Your task to perform on an android device: Search for Italian restaurants on Maps Image 0: 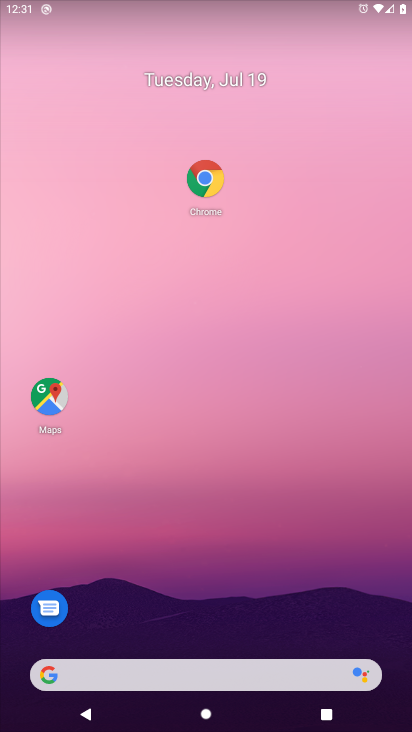
Step 0: click (48, 416)
Your task to perform on an android device: Search for Italian restaurants on Maps Image 1: 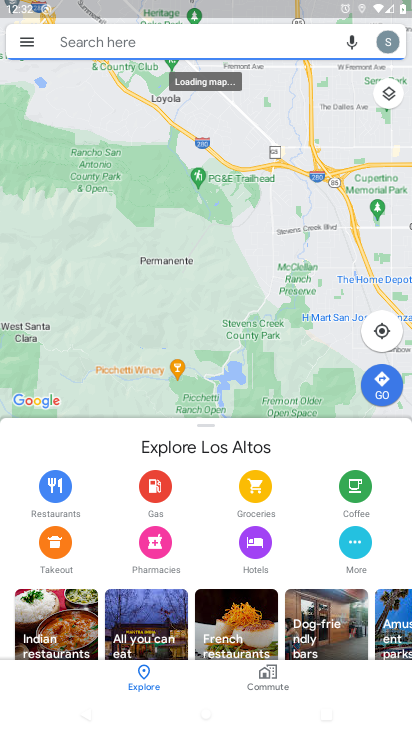
Step 1: click (85, 44)
Your task to perform on an android device: Search for Italian restaurants on Maps Image 2: 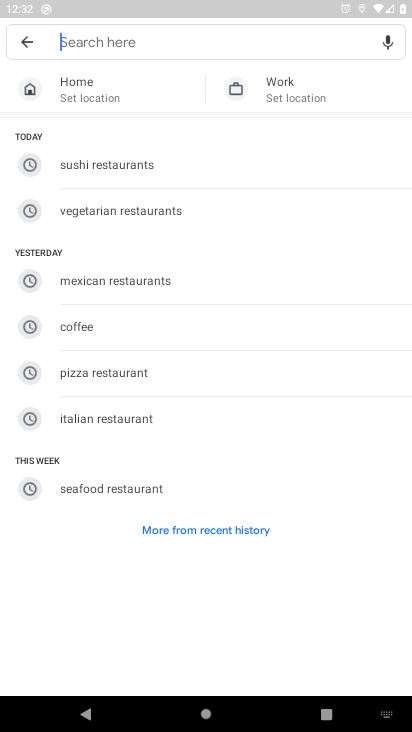
Step 2: click (120, 419)
Your task to perform on an android device: Search for Italian restaurants on Maps Image 3: 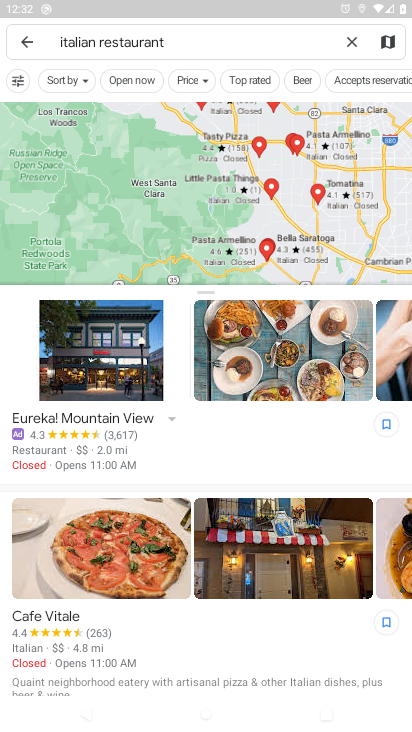
Step 3: task complete